Your task to perform on an android device: Search for Italian restaurants on Maps Image 0: 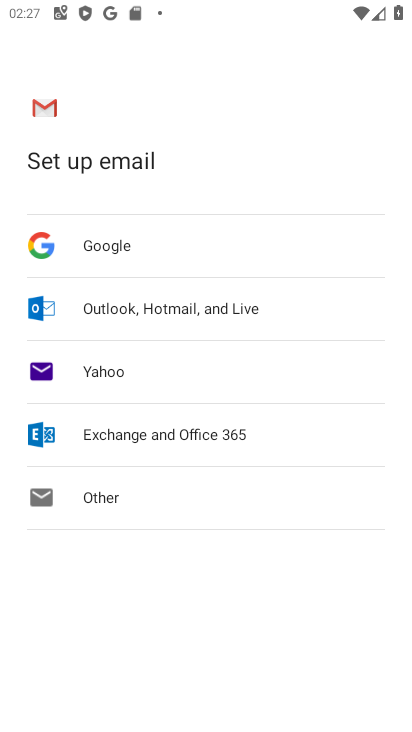
Step 0: press home button
Your task to perform on an android device: Search for Italian restaurants on Maps Image 1: 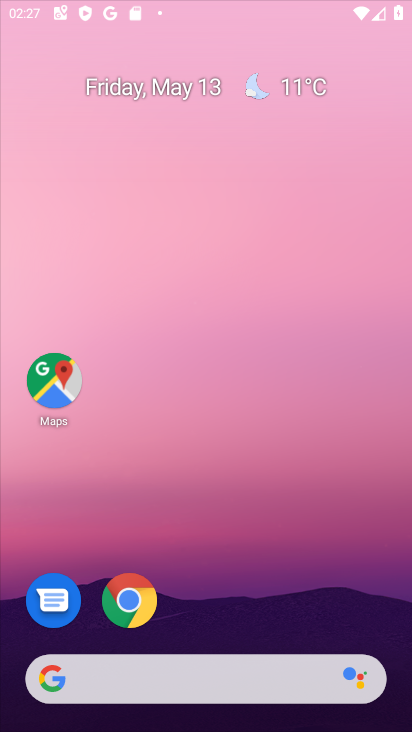
Step 1: drag from (254, 644) to (251, 81)
Your task to perform on an android device: Search for Italian restaurants on Maps Image 2: 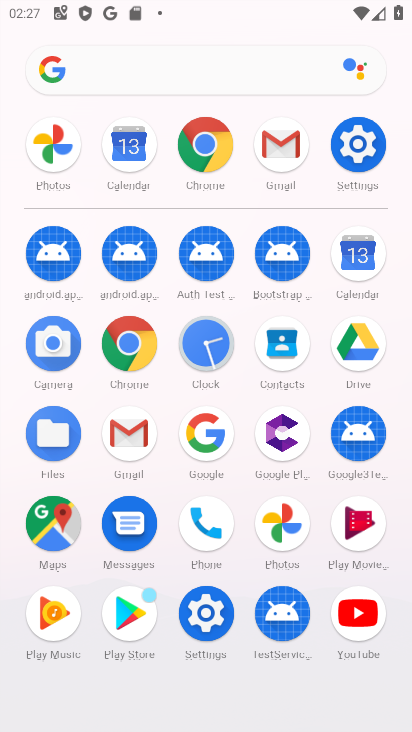
Step 2: click (37, 522)
Your task to perform on an android device: Search for Italian restaurants on Maps Image 3: 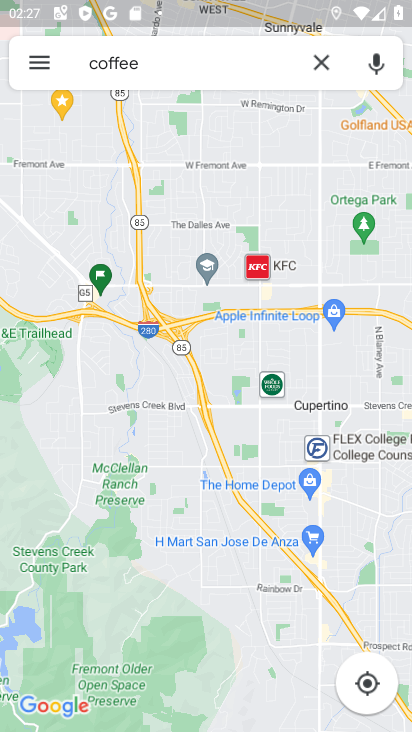
Step 3: click (43, 59)
Your task to perform on an android device: Search for Italian restaurants on Maps Image 4: 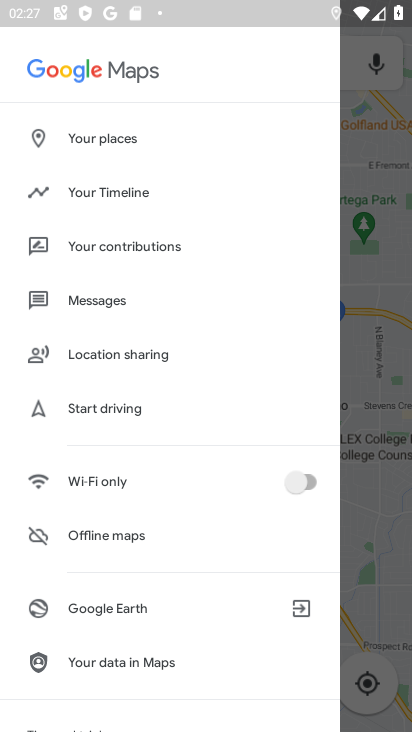
Step 4: click (368, 129)
Your task to perform on an android device: Search for Italian restaurants on Maps Image 5: 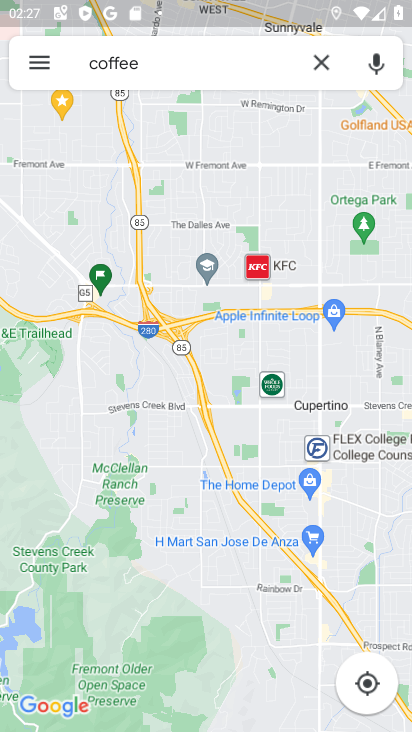
Step 5: click (303, 60)
Your task to perform on an android device: Search for Italian restaurants on Maps Image 6: 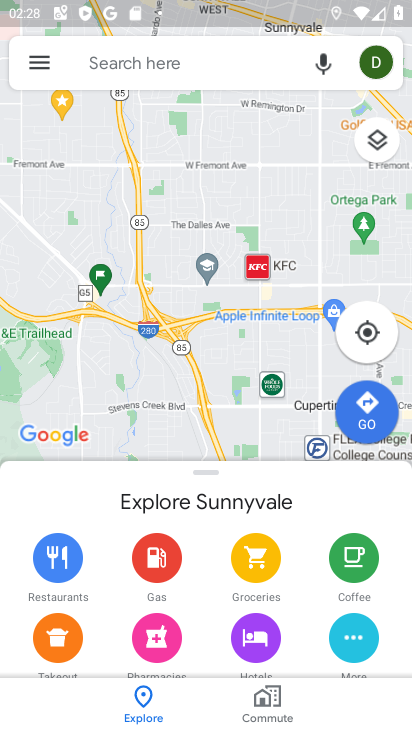
Step 6: click (148, 69)
Your task to perform on an android device: Search for Italian restaurants on Maps Image 7: 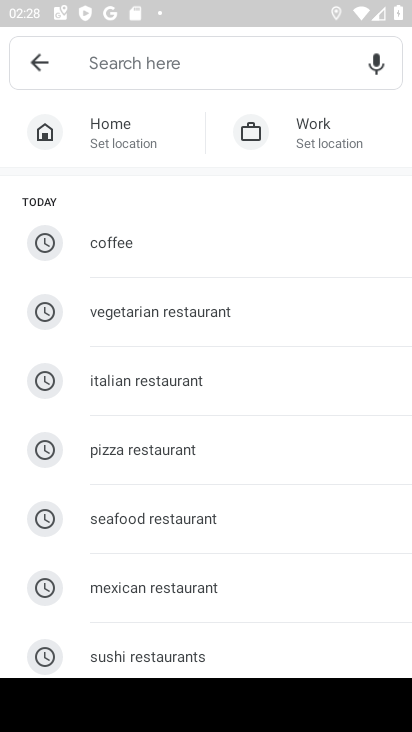
Step 7: drag from (150, 611) to (255, 186)
Your task to perform on an android device: Search for Italian restaurants on Maps Image 8: 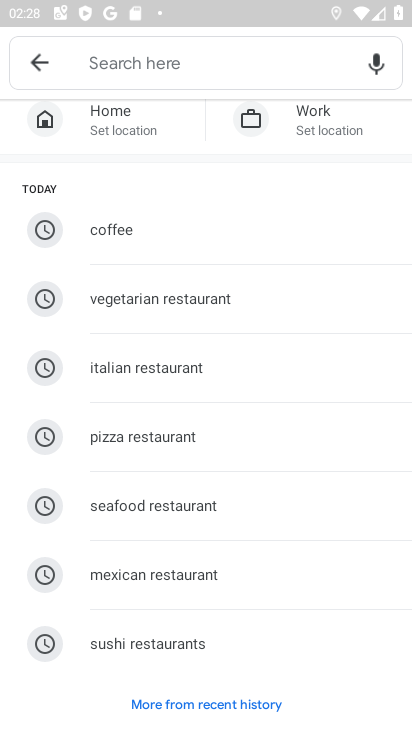
Step 8: click (141, 365)
Your task to perform on an android device: Search for Italian restaurants on Maps Image 9: 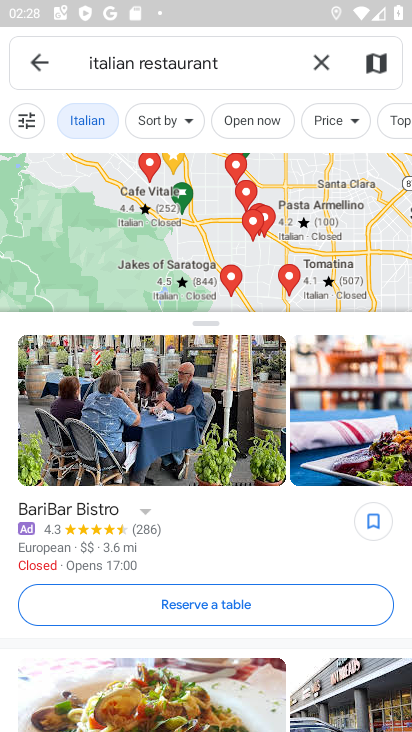
Step 9: task complete